Your task to perform on an android device: change alarm snooze length Image 0: 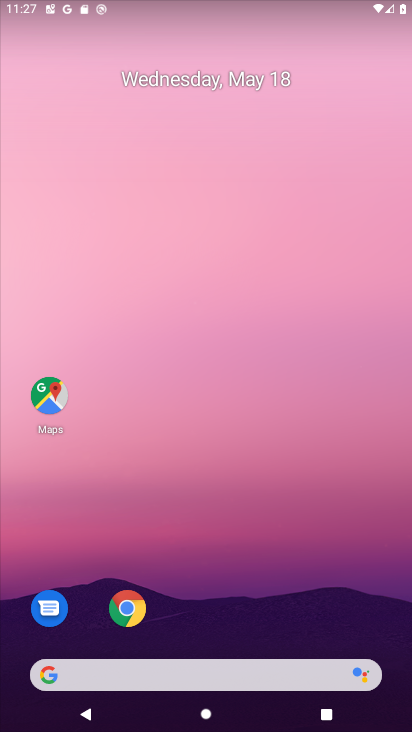
Step 0: drag from (172, 545) to (171, 169)
Your task to perform on an android device: change alarm snooze length Image 1: 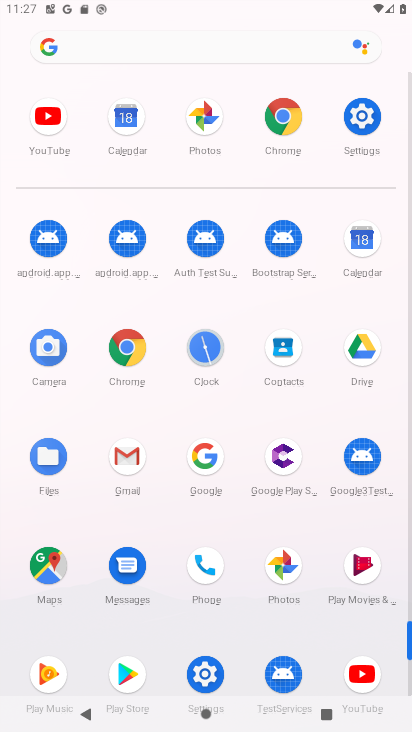
Step 1: click (194, 354)
Your task to perform on an android device: change alarm snooze length Image 2: 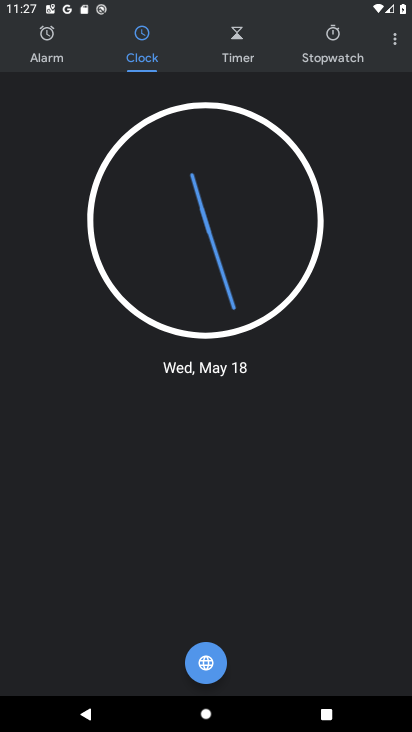
Step 2: click (398, 38)
Your task to perform on an android device: change alarm snooze length Image 3: 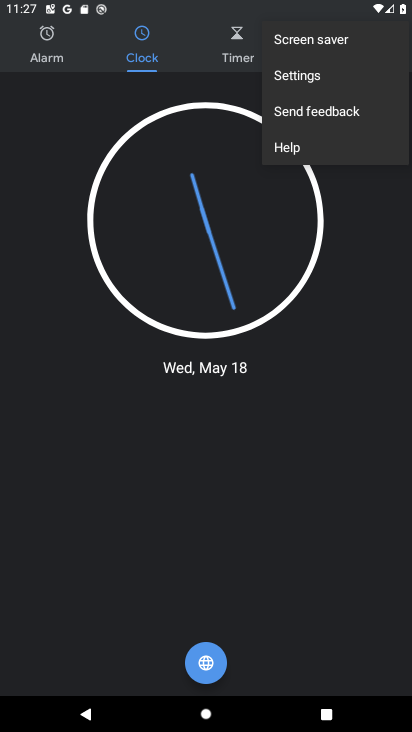
Step 3: click (306, 76)
Your task to perform on an android device: change alarm snooze length Image 4: 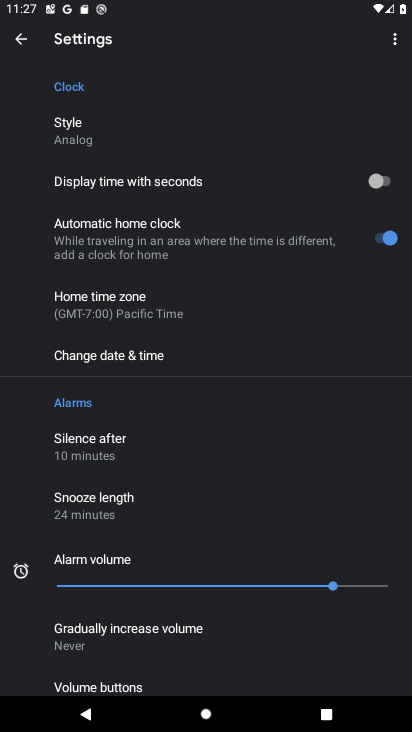
Step 4: click (112, 511)
Your task to perform on an android device: change alarm snooze length Image 5: 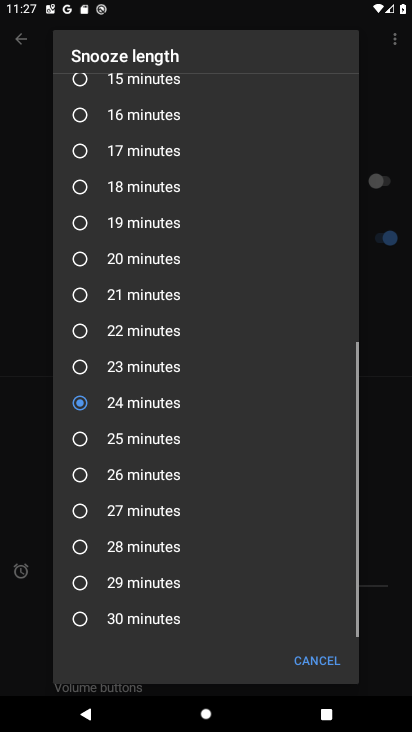
Step 5: click (112, 510)
Your task to perform on an android device: change alarm snooze length Image 6: 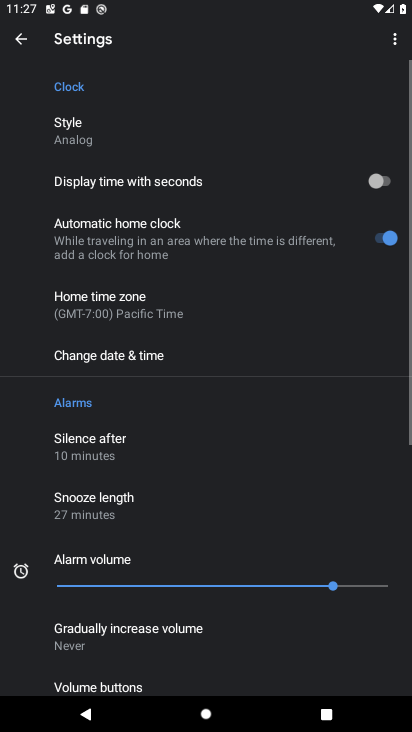
Step 6: task complete